Your task to perform on an android device: toggle data saver in the chrome app Image 0: 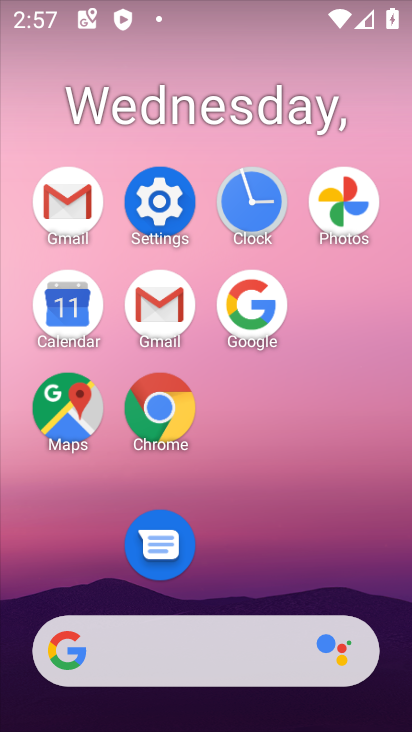
Step 0: click (138, 388)
Your task to perform on an android device: toggle data saver in the chrome app Image 1: 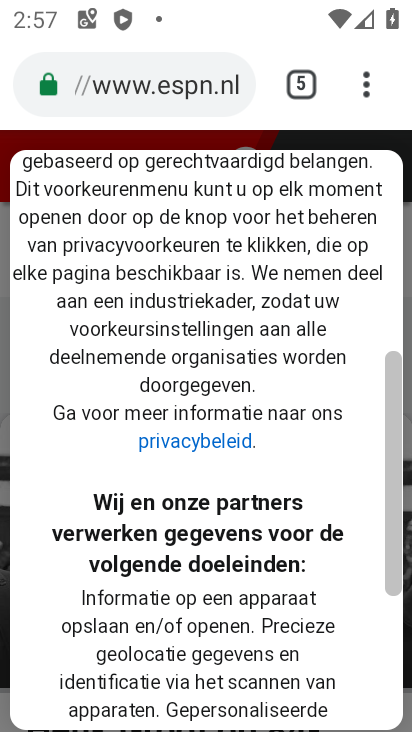
Step 1: click (364, 81)
Your task to perform on an android device: toggle data saver in the chrome app Image 2: 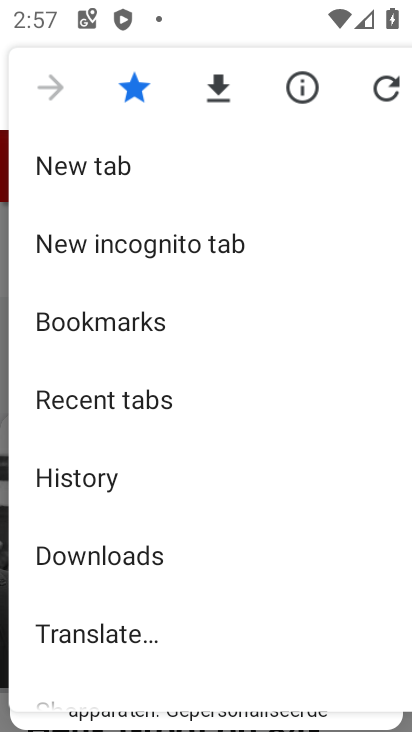
Step 2: drag from (156, 587) to (150, 176)
Your task to perform on an android device: toggle data saver in the chrome app Image 3: 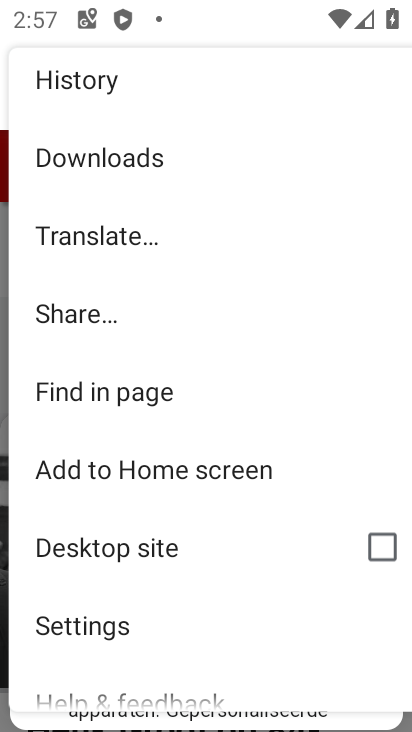
Step 3: click (94, 618)
Your task to perform on an android device: toggle data saver in the chrome app Image 4: 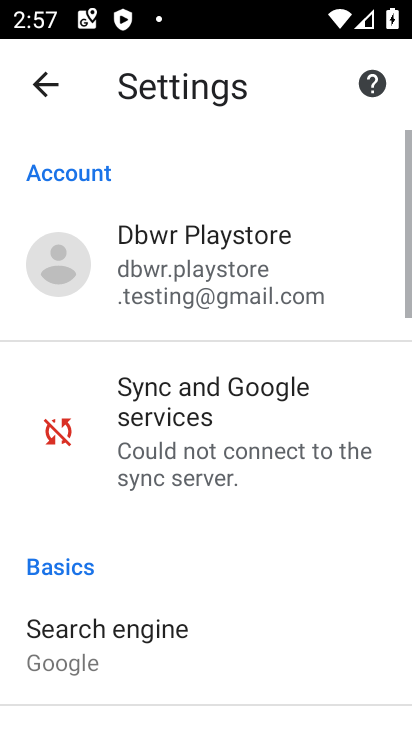
Step 4: drag from (168, 578) to (261, 172)
Your task to perform on an android device: toggle data saver in the chrome app Image 5: 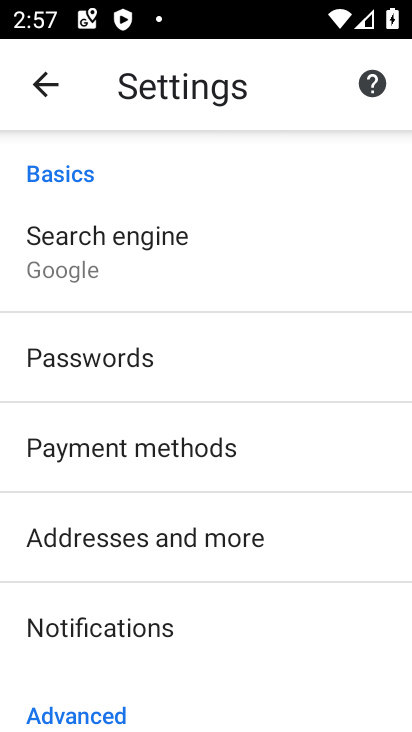
Step 5: drag from (210, 593) to (276, 266)
Your task to perform on an android device: toggle data saver in the chrome app Image 6: 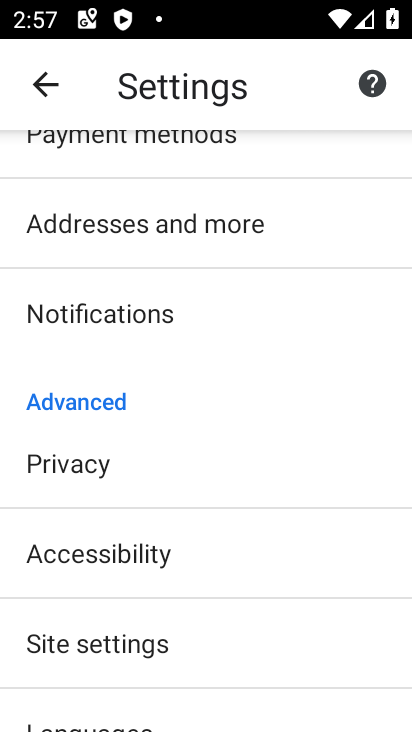
Step 6: drag from (216, 643) to (276, 214)
Your task to perform on an android device: toggle data saver in the chrome app Image 7: 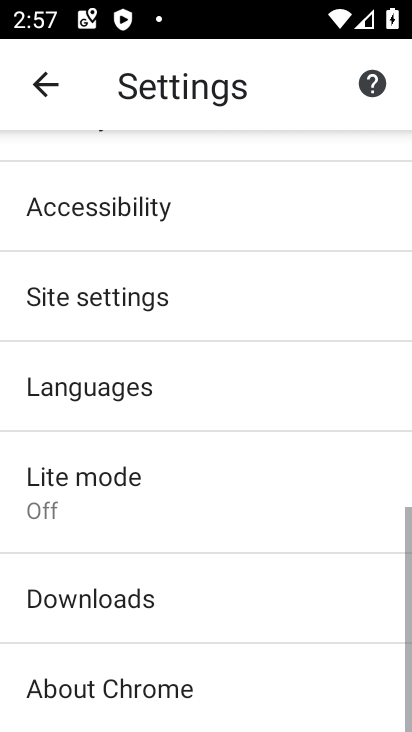
Step 7: click (178, 520)
Your task to perform on an android device: toggle data saver in the chrome app Image 8: 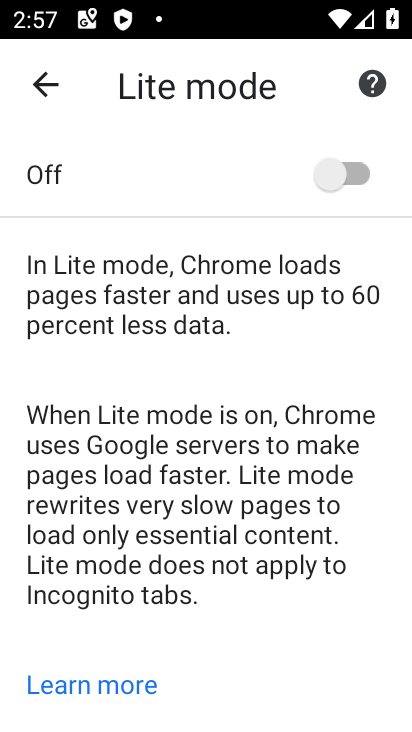
Step 8: click (322, 193)
Your task to perform on an android device: toggle data saver in the chrome app Image 9: 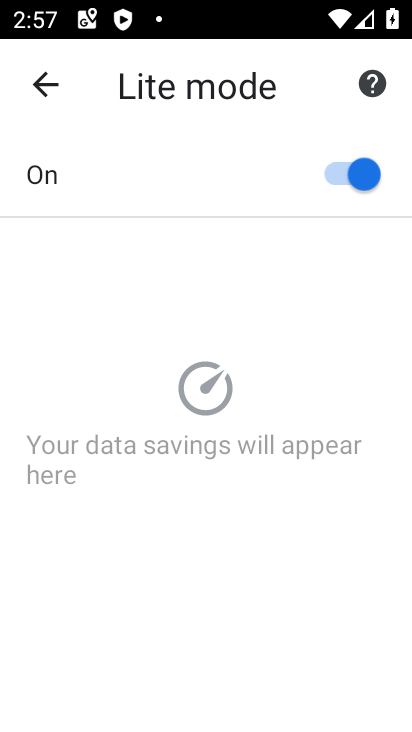
Step 9: task complete